Your task to perform on an android device: turn off picture-in-picture Image 0: 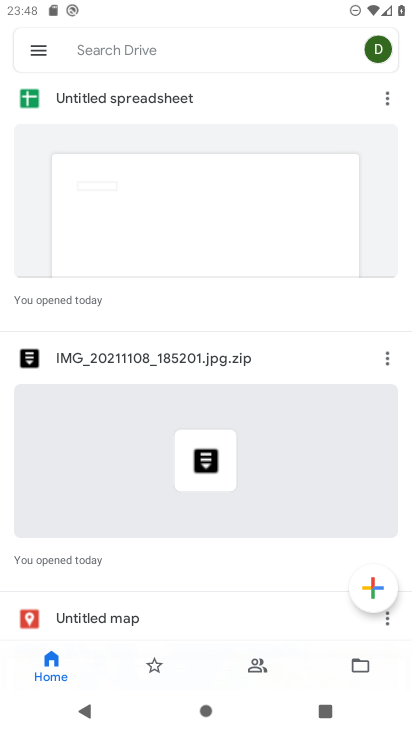
Step 0: press home button
Your task to perform on an android device: turn off picture-in-picture Image 1: 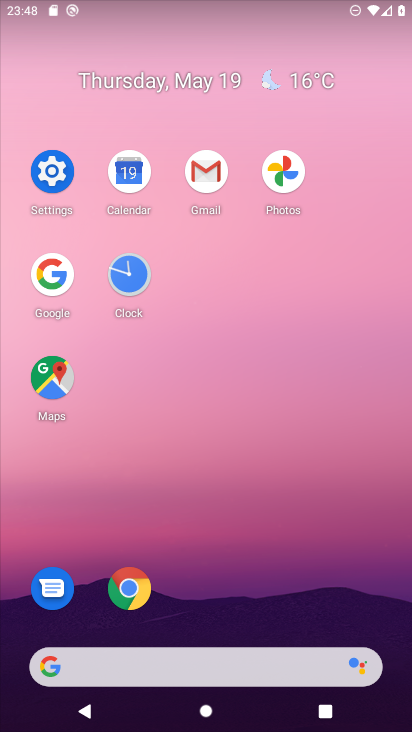
Step 1: click (127, 581)
Your task to perform on an android device: turn off picture-in-picture Image 2: 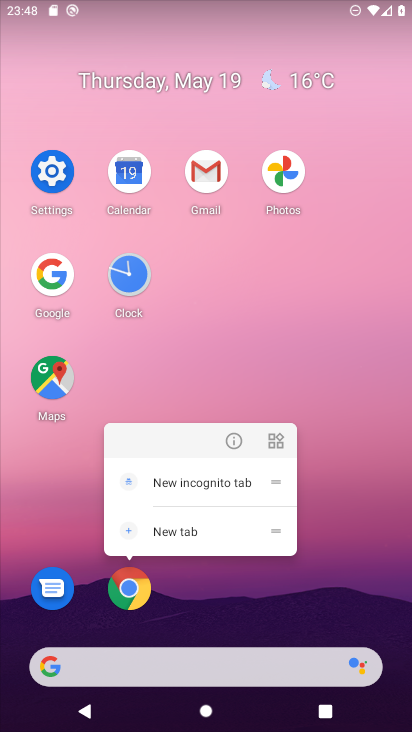
Step 2: click (240, 433)
Your task to perform on an android device: turn off picture-in-picture Image 3: 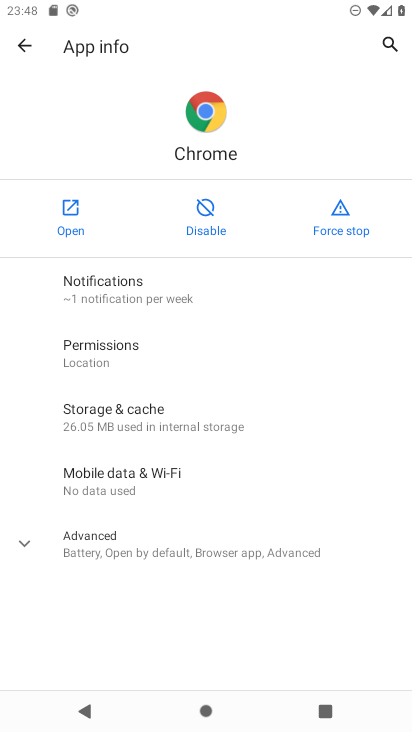
Step 3: click (215, 548)
Your task to perform on an android device: turn off picture-in-picture Image 4: 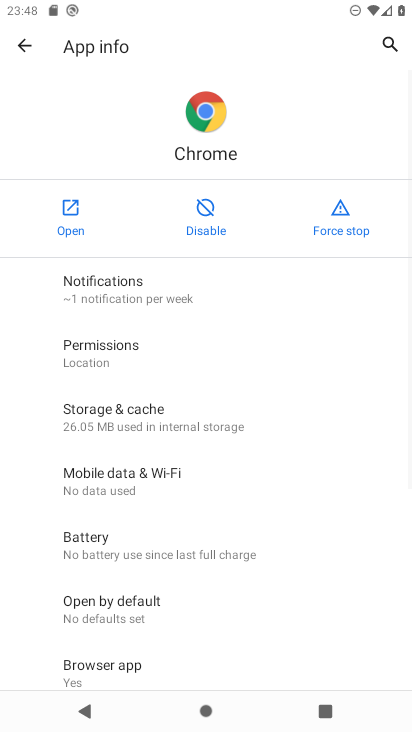
Step 4: drag from (190, 607) to (230, 298)
Your task to perform on an android device: turn off picture-in-picture Image 5: 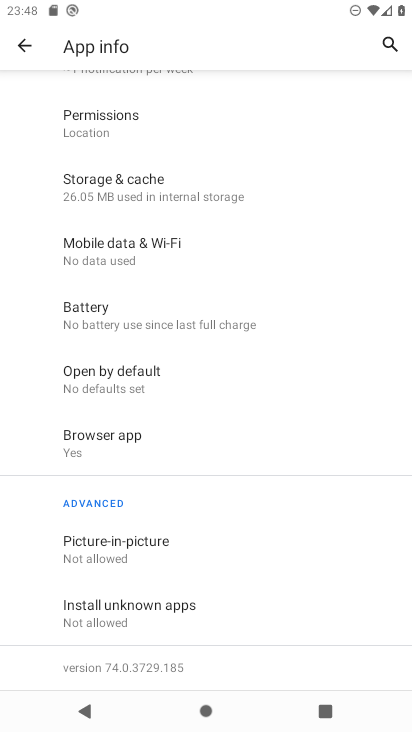
Step 5: click (168, 553)
Your task to perform on an android device: turn off picture-in-picture Image 6: 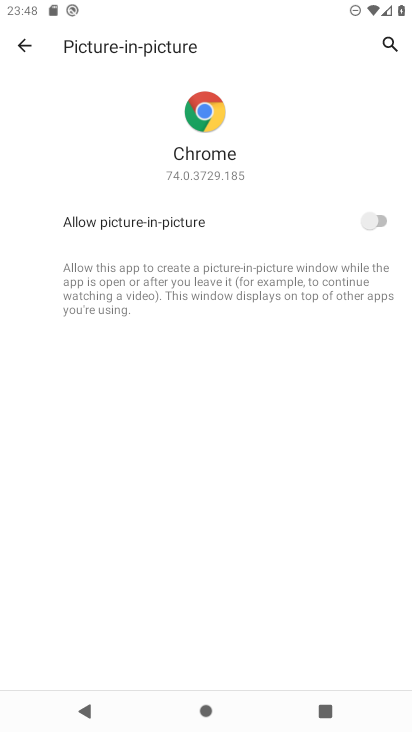
Step 6: task complete